Your task to perform on an android device: allow notifications from all sites in the chrome app Image 0: 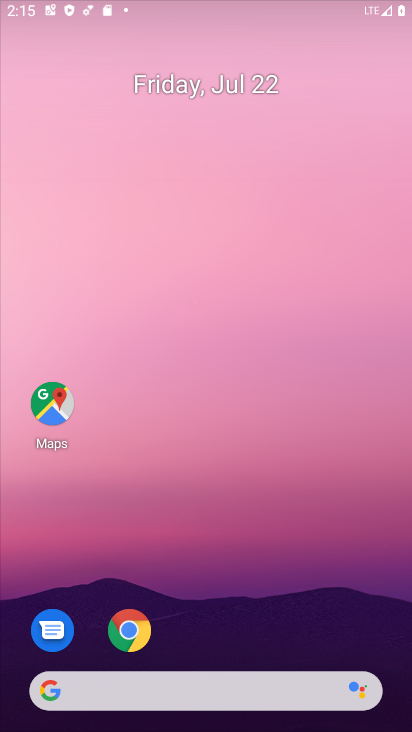
Step 0: drag from (195, 663) to (89, 83)
Your task to perform on an android device: allow notifications from all sites in the chrome app Image 1: 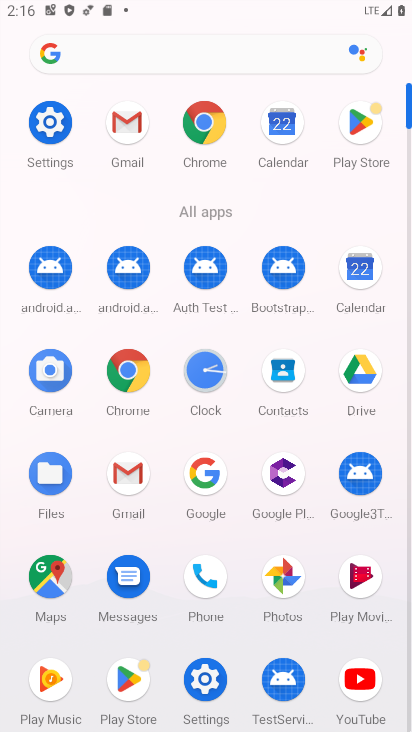
Step 1: click (203, 671)
Your task to perform on an android device: allow notifications from all sites in the chrome app Image 2: 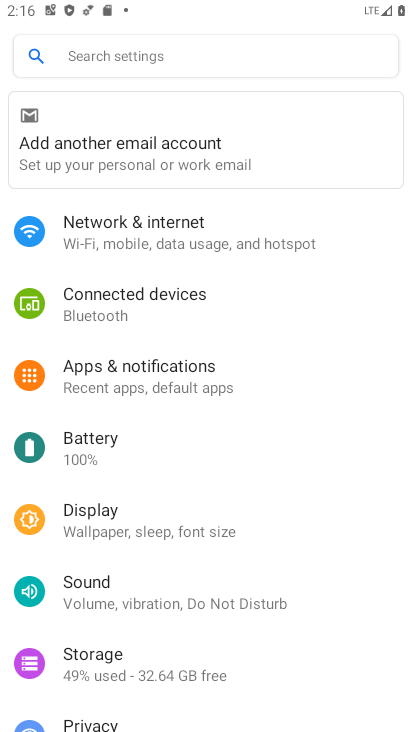
Step 2: press home button
Your task to perform on an android device: allow notifications from all sites in the chrome app Image 3: 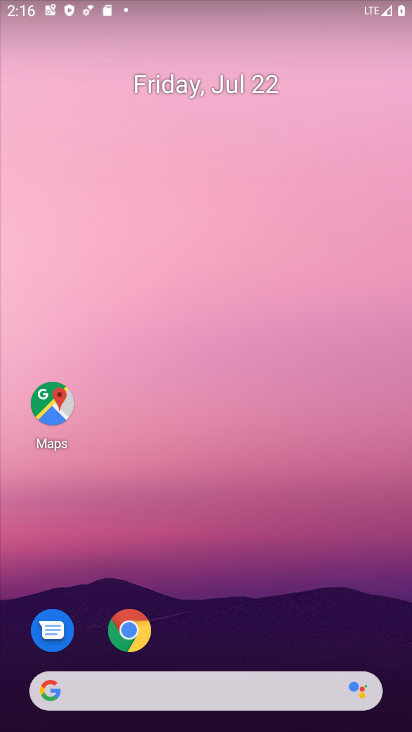
Step 3: drag from (216, 657) to (149, 20)
Your task to perform on an android device: allow notifications from all sites in the chrome app Image 4: 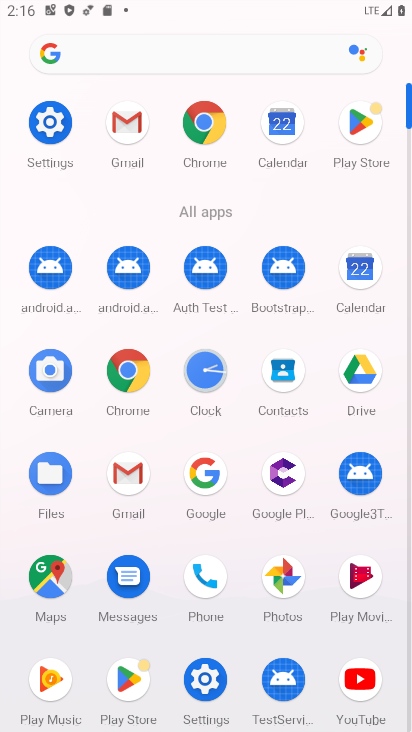
Step 4: click (132, 377)
Your task to perform on an android device: allow notifications from all sites in the chrome app Image 5: 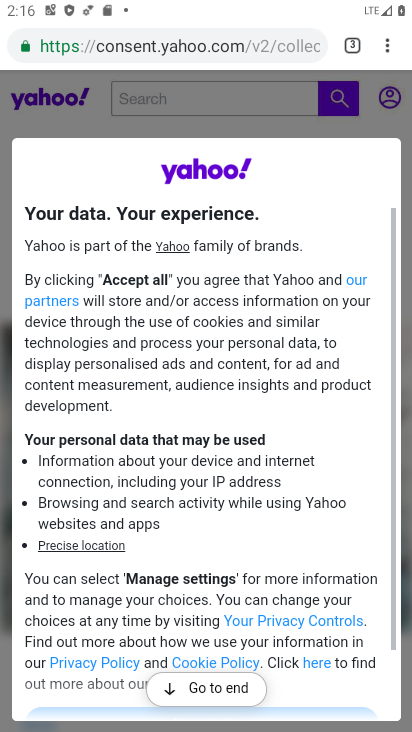
Step 5: drag from (391, 37) to (218, 537)
Your task to perform on an android device: allow notifications from all sites in the chrome app Image 6: 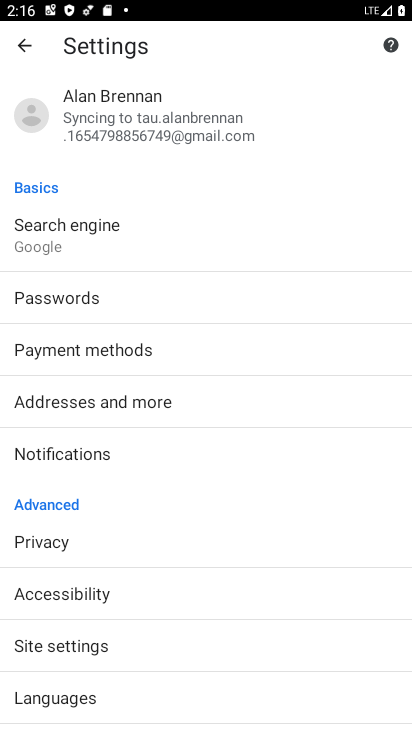
Step 6: click (110, 442)
Your task to perform on an android device: allow notifications from all sites in the chrome app Image 7: 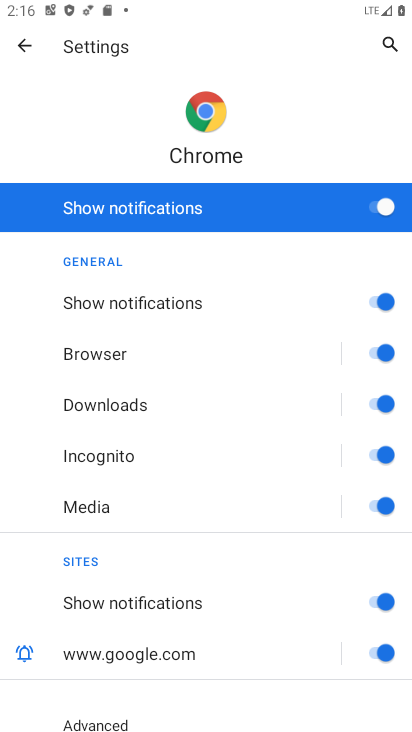
Step 7: task complete